Your task to perform on an android device: Google the capital of Canada Image 0: 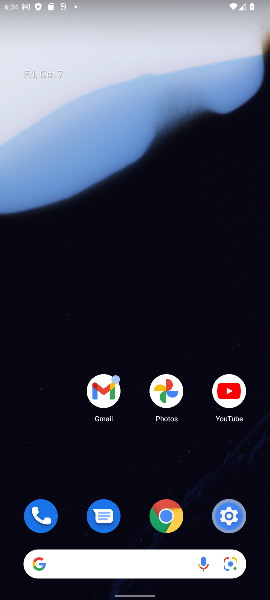
Step 0: click (151, 566)
Your task to perform on an android device: Google the capital of Canada Image 1: 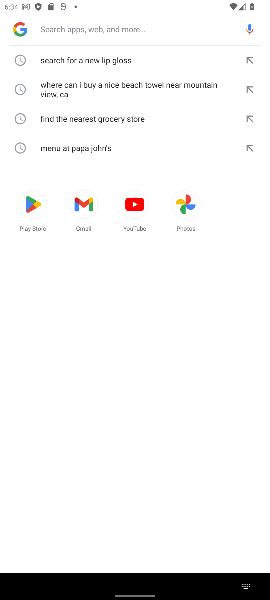
Step 1: type "Google the capital of Canada"
Your task to perform on an android device: Google the capital of Canada Image 2: 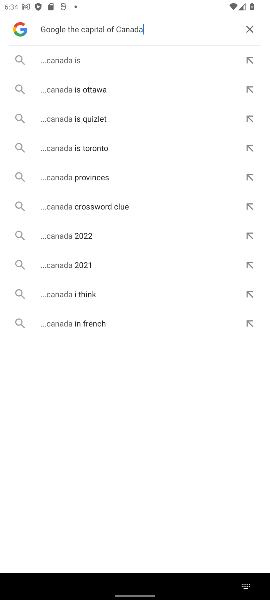
Step 2: click (114, 65)
Your task to perform on an android device: Google the capital of Canada Image 3: 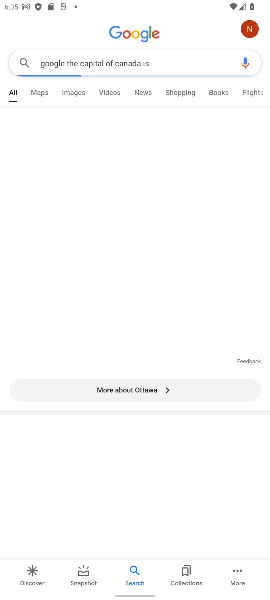
Step 3: task complete